Your task to perform on an android device: Open the Play Movies app and select the watchlist tab. Image 0: 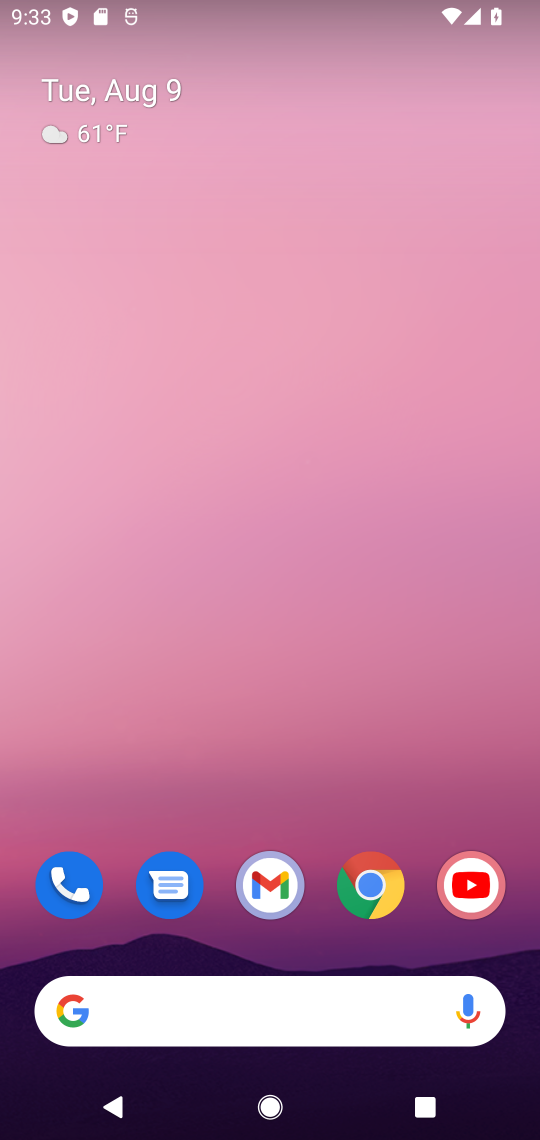
Step 0: press home button
Your task to perform on an android device: Open the Play Movies app and select the watchlist tab. Image 1: 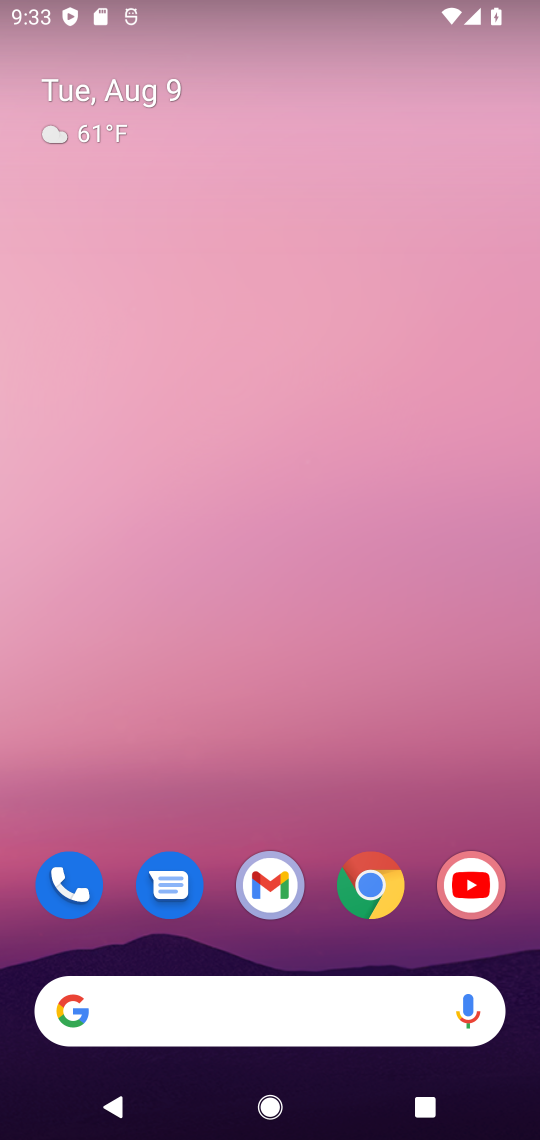
Step 1: task complete